Your task to perform on an android device: See recent photos Image 0: 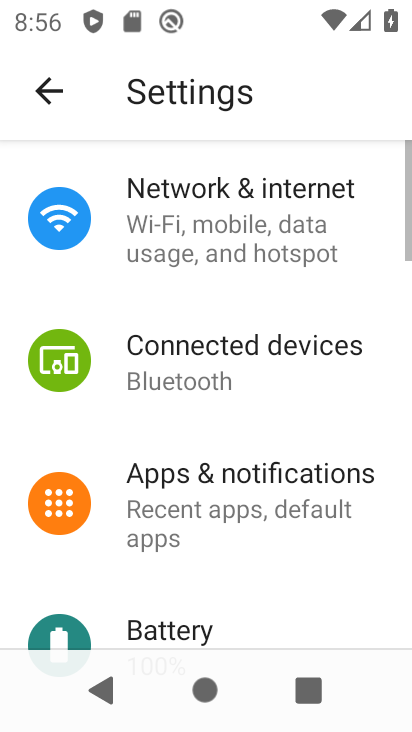
Step 0: press home button
Your task to perform on an android device: See recent photos Image 1: 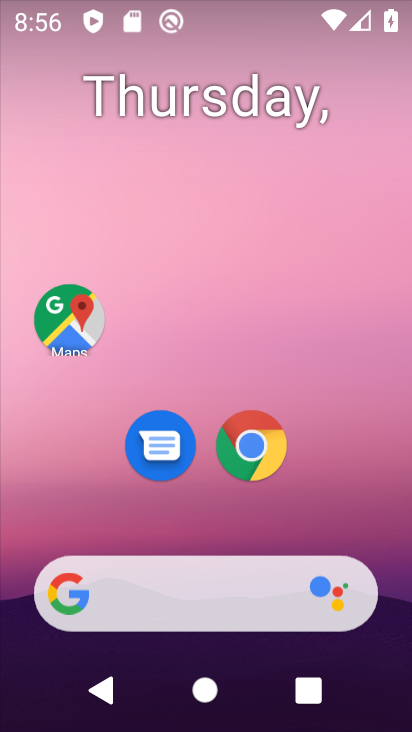
Step 1: drag from (215, 550) to (135, 1)
Your task to perform on an android device: See recent photos Image 2: 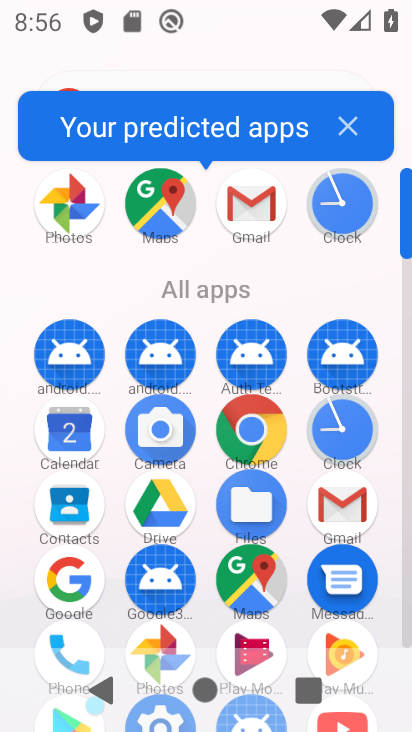
Step 2: click (159, 639)
Your task to perform on an android device: See recent photos Image 3: 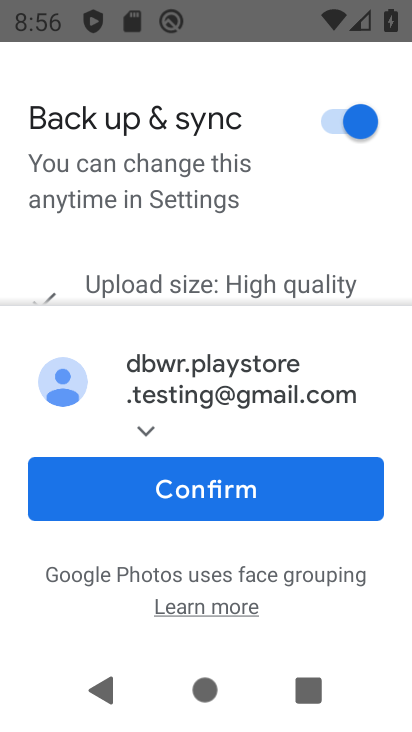
Step 3: click (126, 517)
Your task to perform on an android device: See recent photos Image 4: 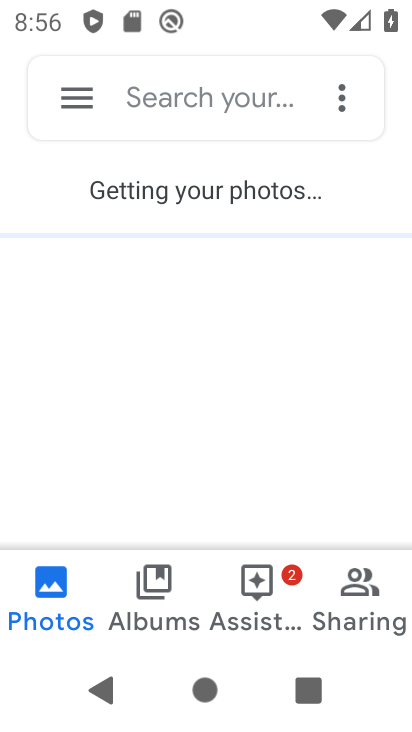
Step 4: task complete